Your task to perform on an android device: Go to calendar. Show me events next week Image 0: 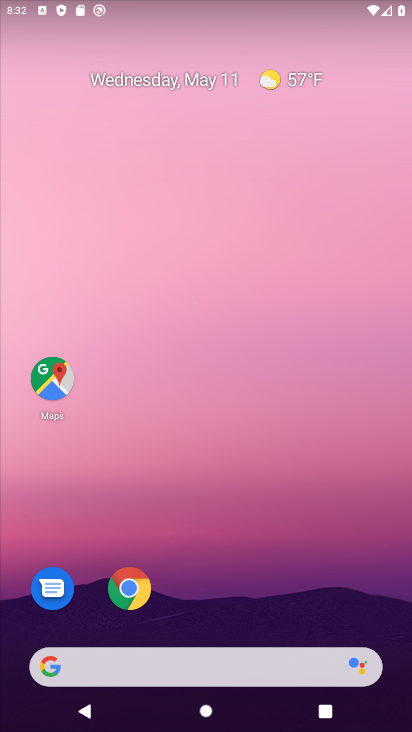
Step 0: press home button
Your task to perform on an android device: Go to calendar. Show me events next week Image 1: 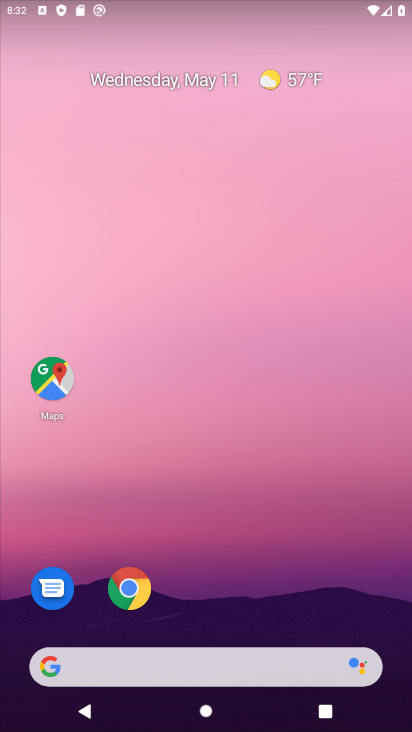
Step 1: drag from (265, 721) to (136, 41)
Your task to perform on an android device: Go to calendar. Show me events next week Image 2: 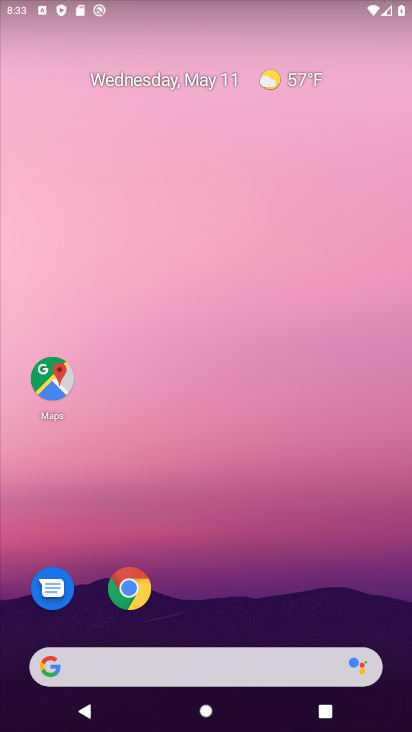
Step 2: drag from (143, 724) to (146, 93)
Your task to perform on an android device: Go to calendar. Show me events next week Image 3: 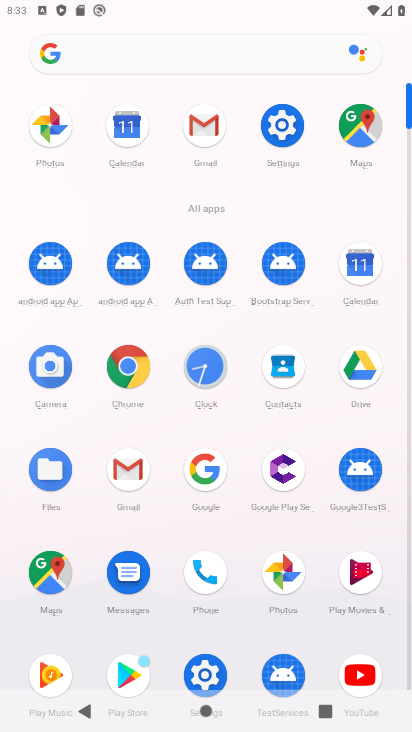
Step 3: click (360, 254)
Your task to perform on an android device: Go to calendar. Show me events next week Image 4: 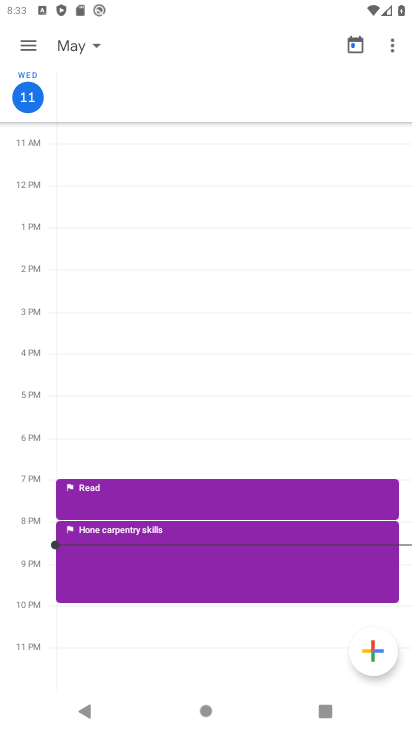
Step 4: click (85, 50)
Your task to perform on an android device: Go to calendar. Show me events next week Image 5: 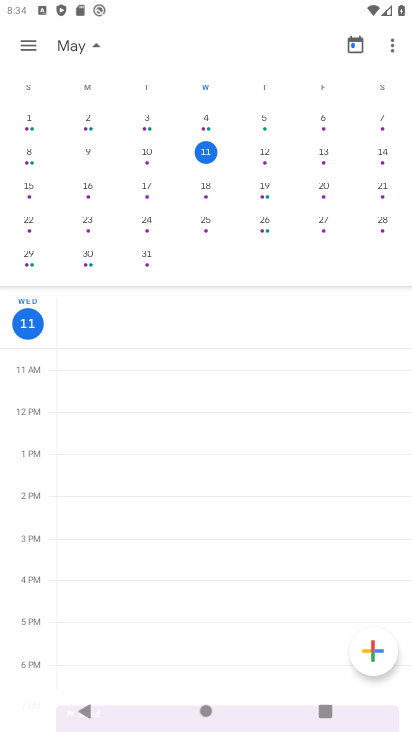
Step 5: click (24, 184)
Your task to perform on an android device: Go to calendar. Show me events next week Image 6: 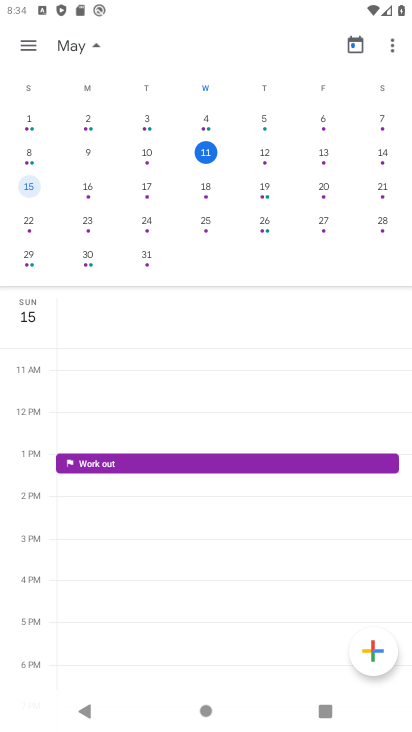
Step 6: task complete